Your task to perform on an android device: Open Google Chrome Image 0: 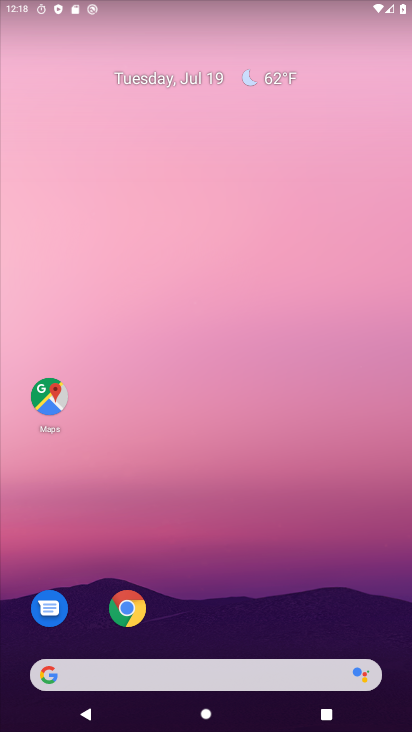
Step 0: press home button
Your task to perform on an android device: Open Google Chrome Image 1: 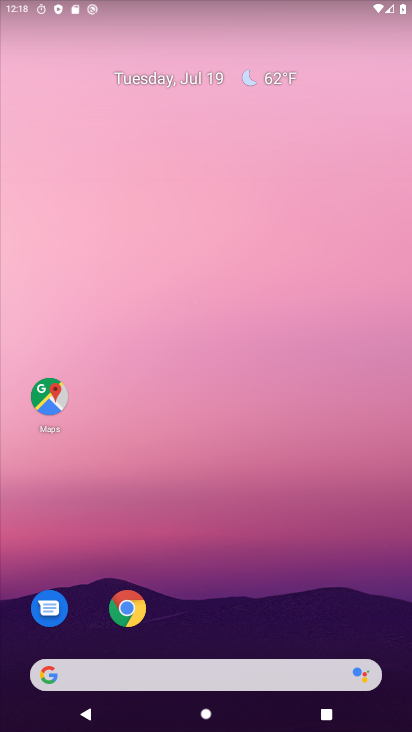
Step 1: click (123, 605)
Your task to perform on an android device: Open Google Chrome Image 2: 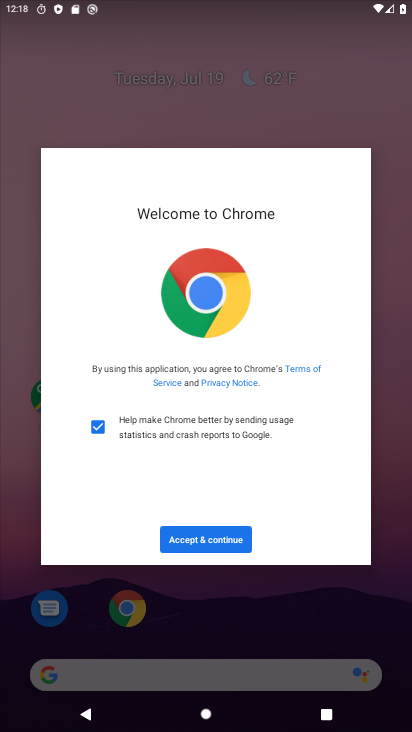
Step 2: click (201, 538)
Your task to perform on an android device: Open Google Chrome Image 3: 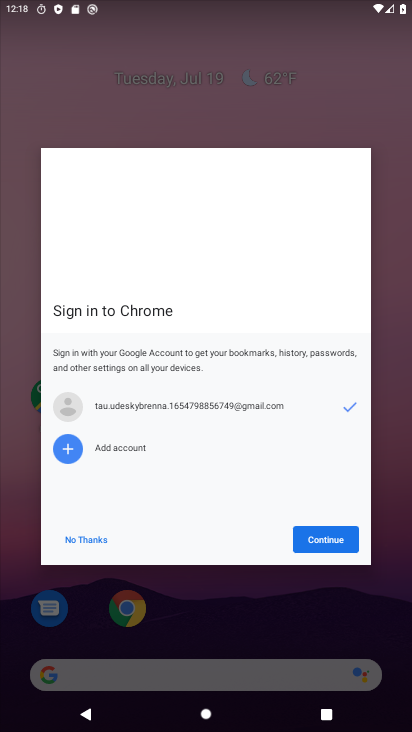
Step 3: click (328, 539)
Your task to perform on an android device: Open Google Chrome Image 4: 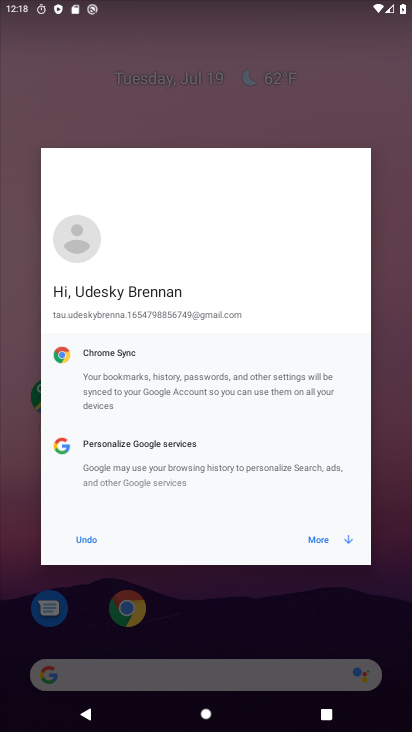
Step 4: click (326, 539)
Your task to perform on an android device: Open Google Chrome Image 5: 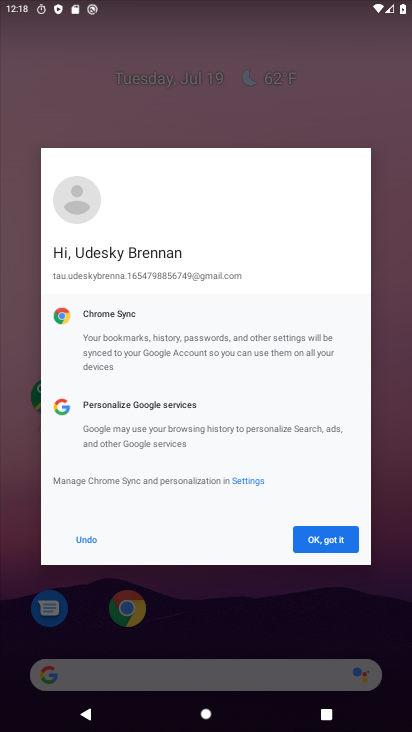
Step 5: click (321, 539)
Your task to perform on an android device: Open Google Chrome Image 6: 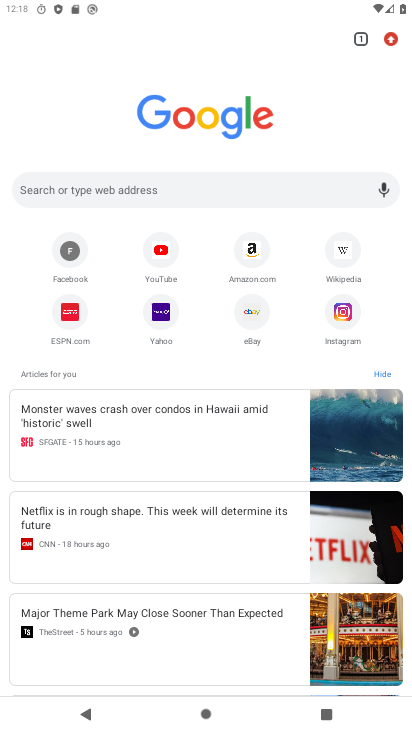
Step 6: task complete